Your task to perform on an android device: Play the last video I watched on Youtube Image 0: 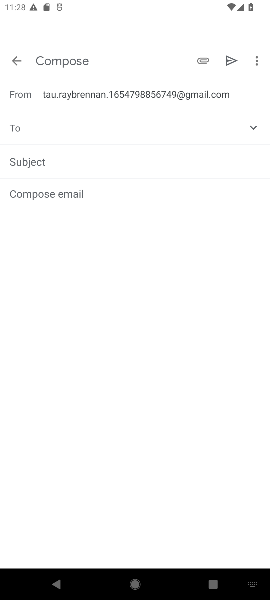
Step 0: press home button
Your task to perform on an android device: Play the last video I watched on Youtube Image 1: 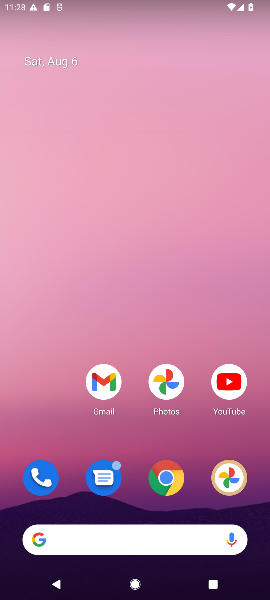
Step 1: click (238, 368)
Your task to perform on an android device: Play the last video I watched on Youtube Image 2: 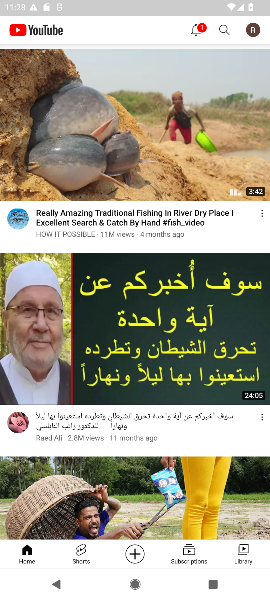
Step 2: click (241, 554)
Your task to perform on an android device: Play the last video I watched on Youtube Image 3: 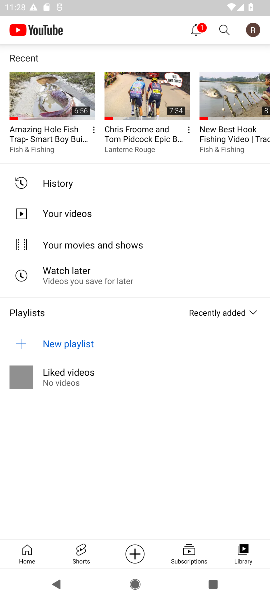
Step 3: click (44, 114)
Your task to perform on an android device: Play the last video I watched on Youtube Image 4: 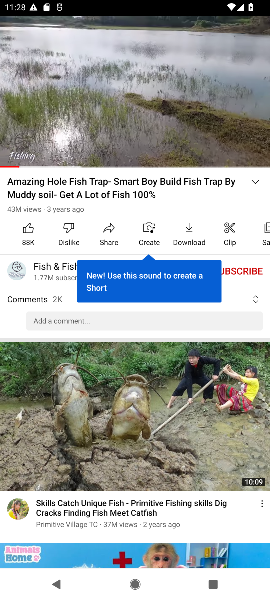
Step 4: task complete